Your task to perform on an android device: Open Google Chrome Image 0: 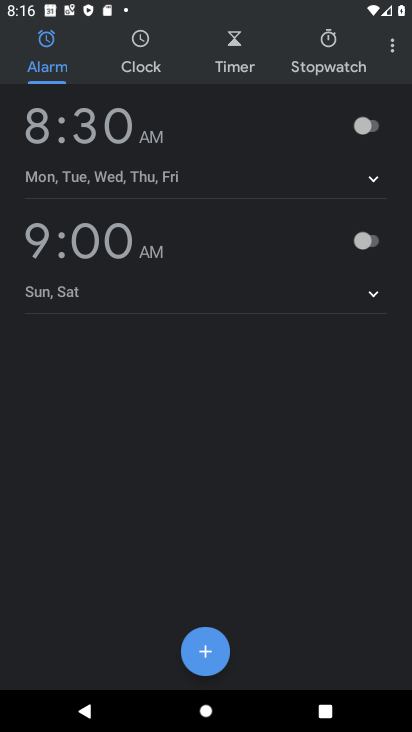
Step 0: press home button
Your task to perform on an android device: Open Google Chrome Image 1: 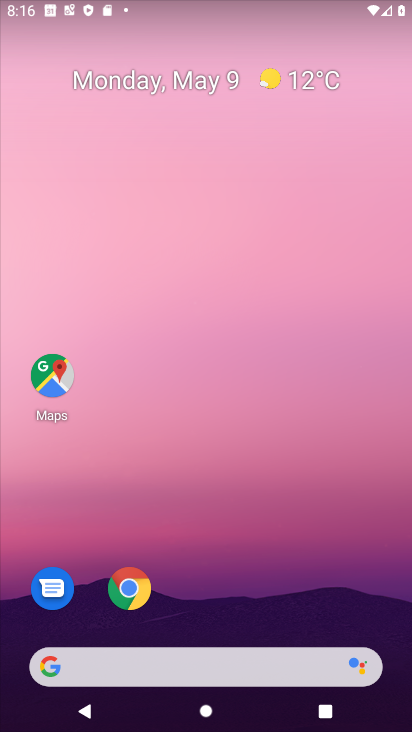
Step 1: drag from (129, 664) to (297, 137)
Your task to perform on an android device: Open Google Chrome Image 2: 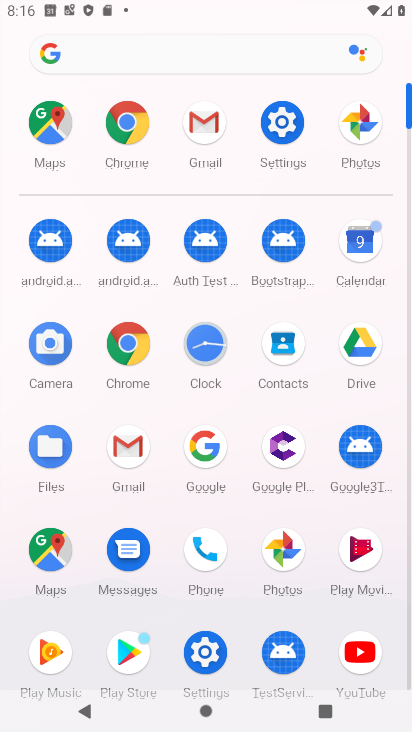
Step 2: click (127, 127)
Your task to perform on an android device: Open Google Chrome Image 3: 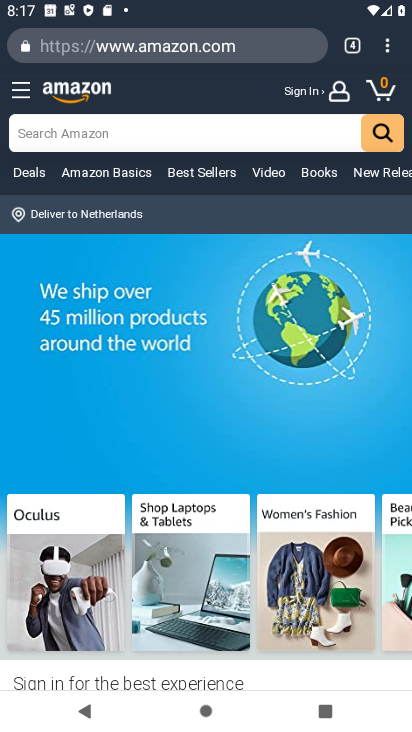
Step 3: task complete